Your task to perform on an android device: Add usb-a to the cart on newegg.com, then select checkout. Image 0: 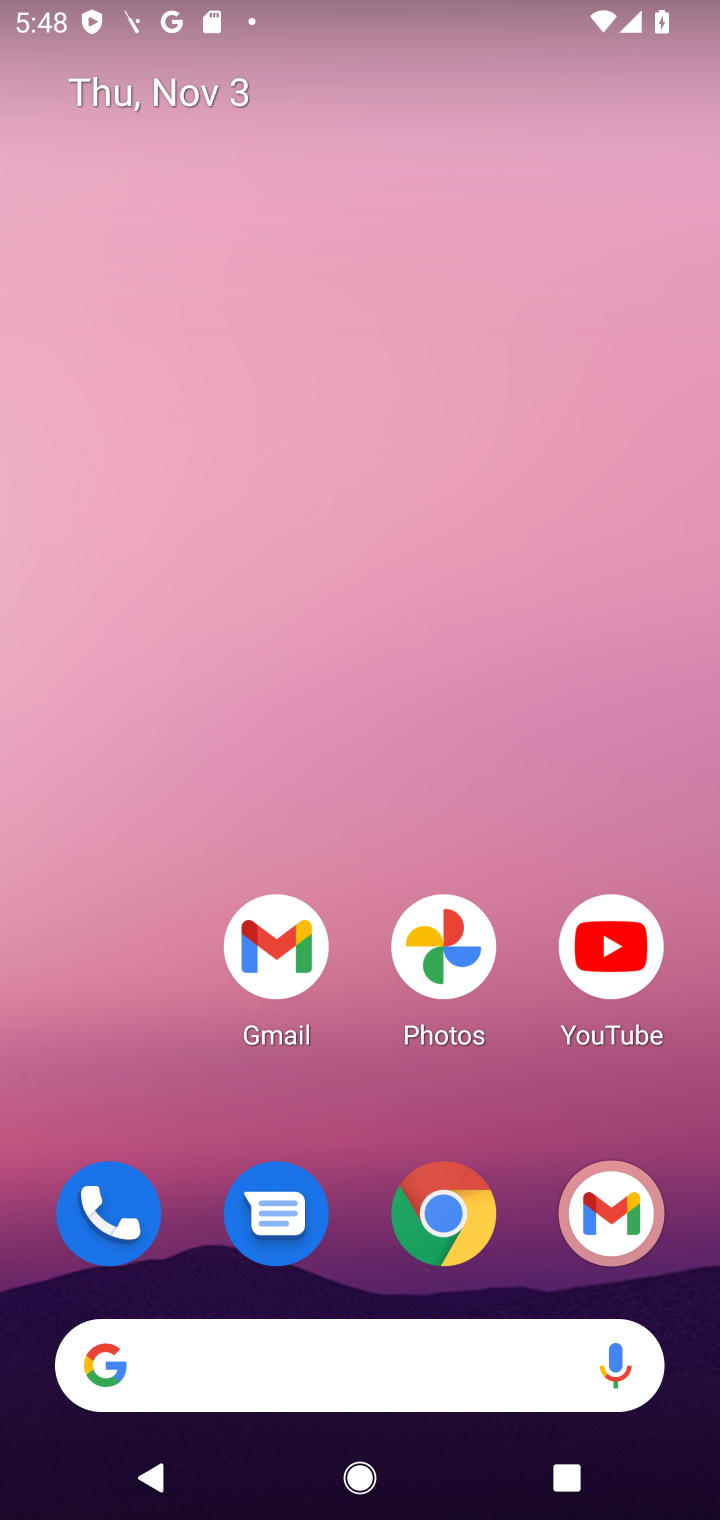
Step 0: click (454, 1225)
Your task to perform on an android device: Add usb-a to the cart on newegg.com, then select checkout. Image 1: 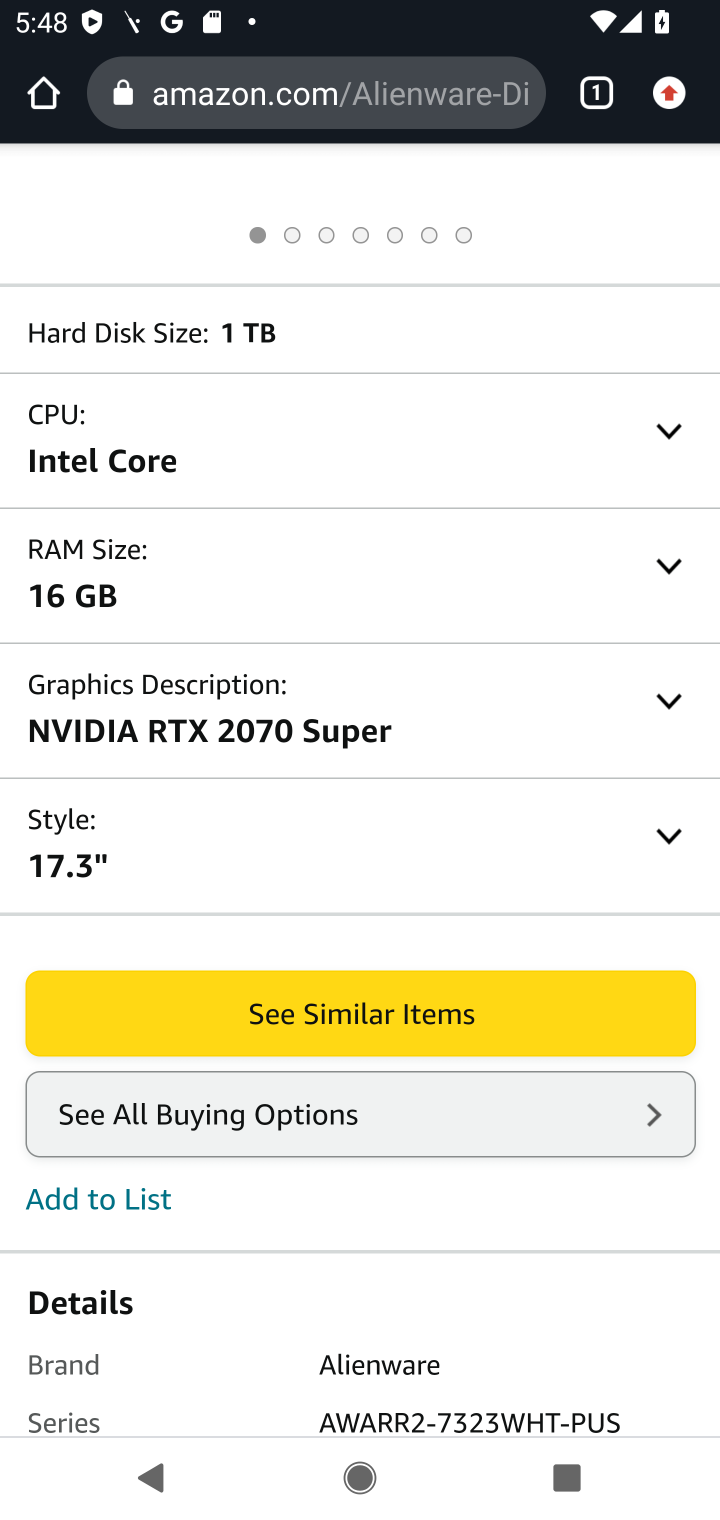
Step 1: click (365, 99)
Your task to perform on an android device: Add usb-a to the cart on newegg.com, then select checkout. Image 2: 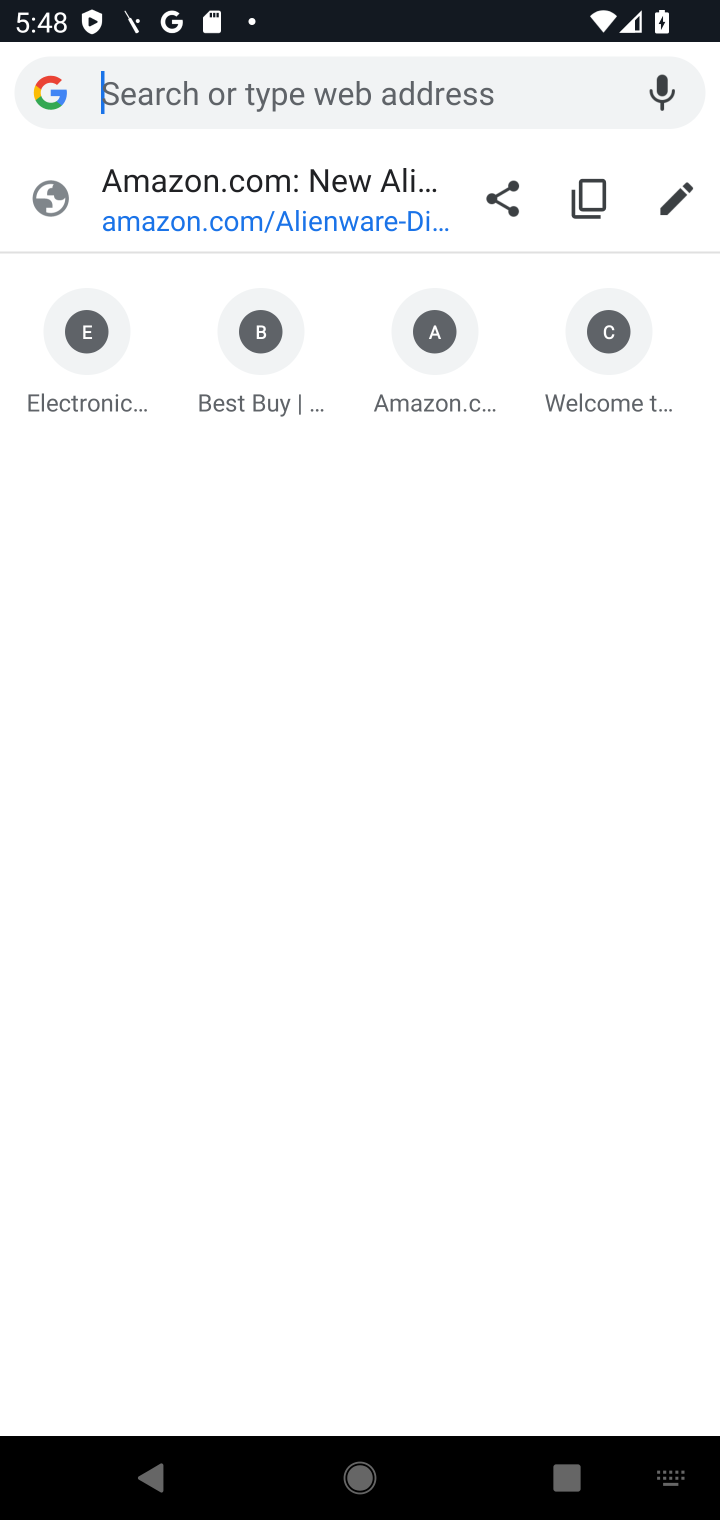
Step 2: type "newegg.com"
Your task to perform on an android device: Add usb-a to the cart on newegg.com, then select checkout. Image 3: 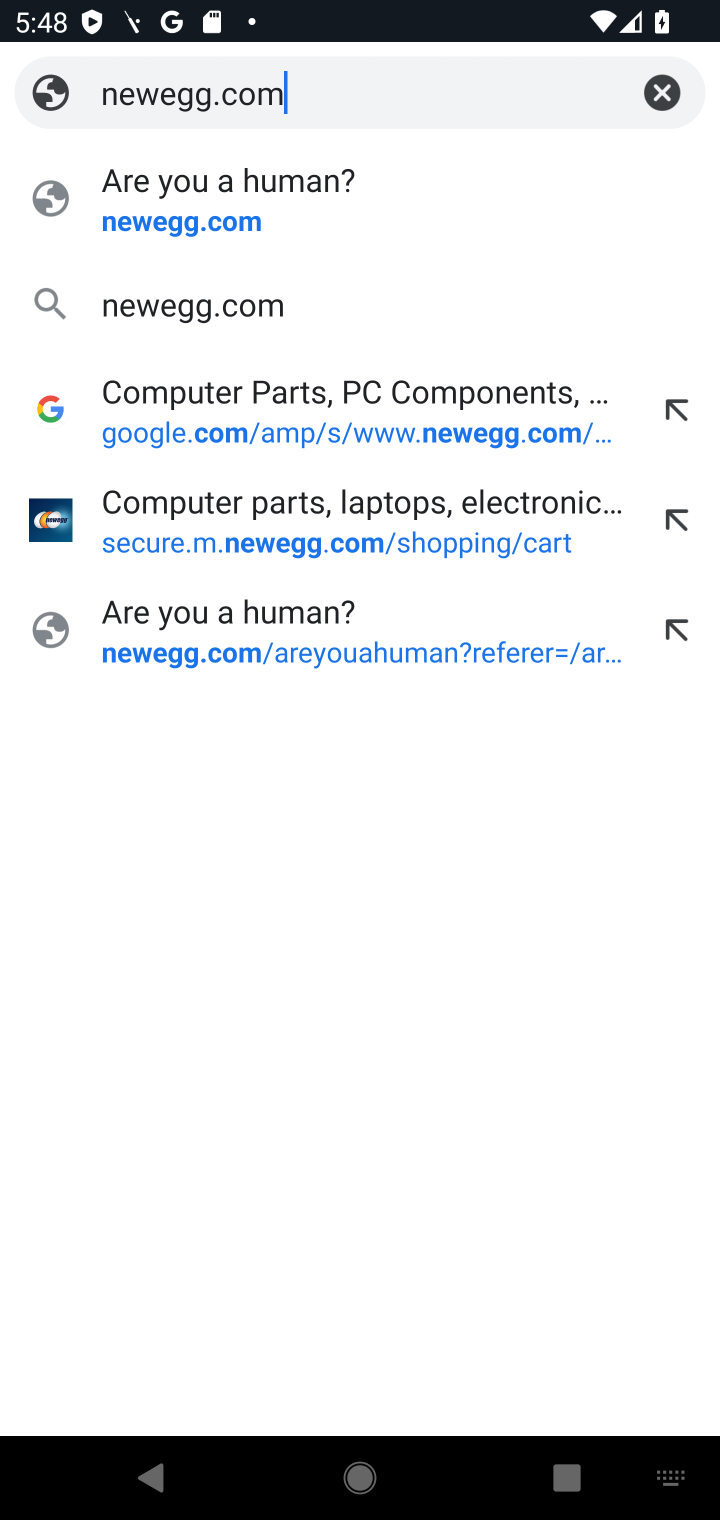
Step 3: click (170, 317)
Your task to perform on an android device: Add usb-a to the cart on newegg.com, then select checkout. Image 4: 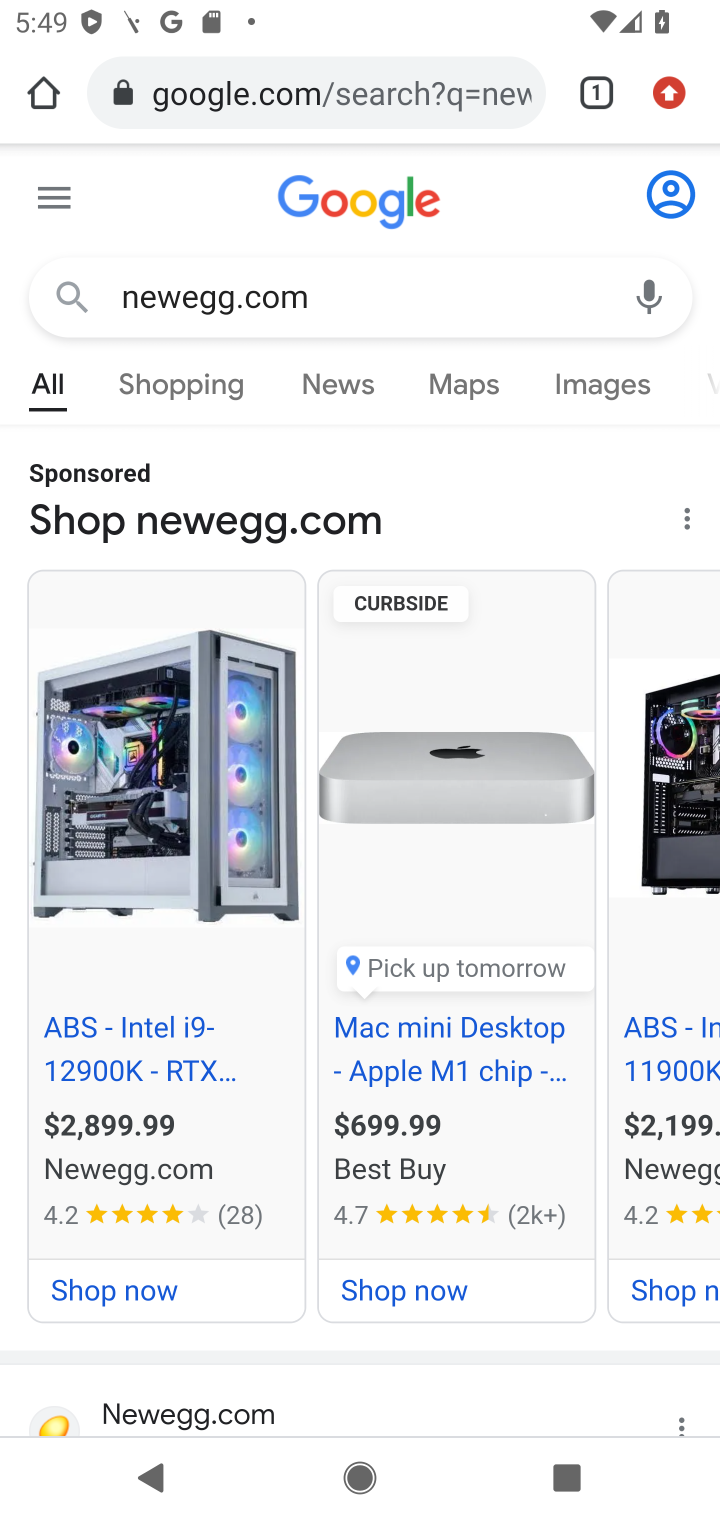
Step 4: drag from (317, 871) to (349, 156)
Your task to perform on an android device: Add usb-a to the cart on newegg.com, then select checkout. Image 5: 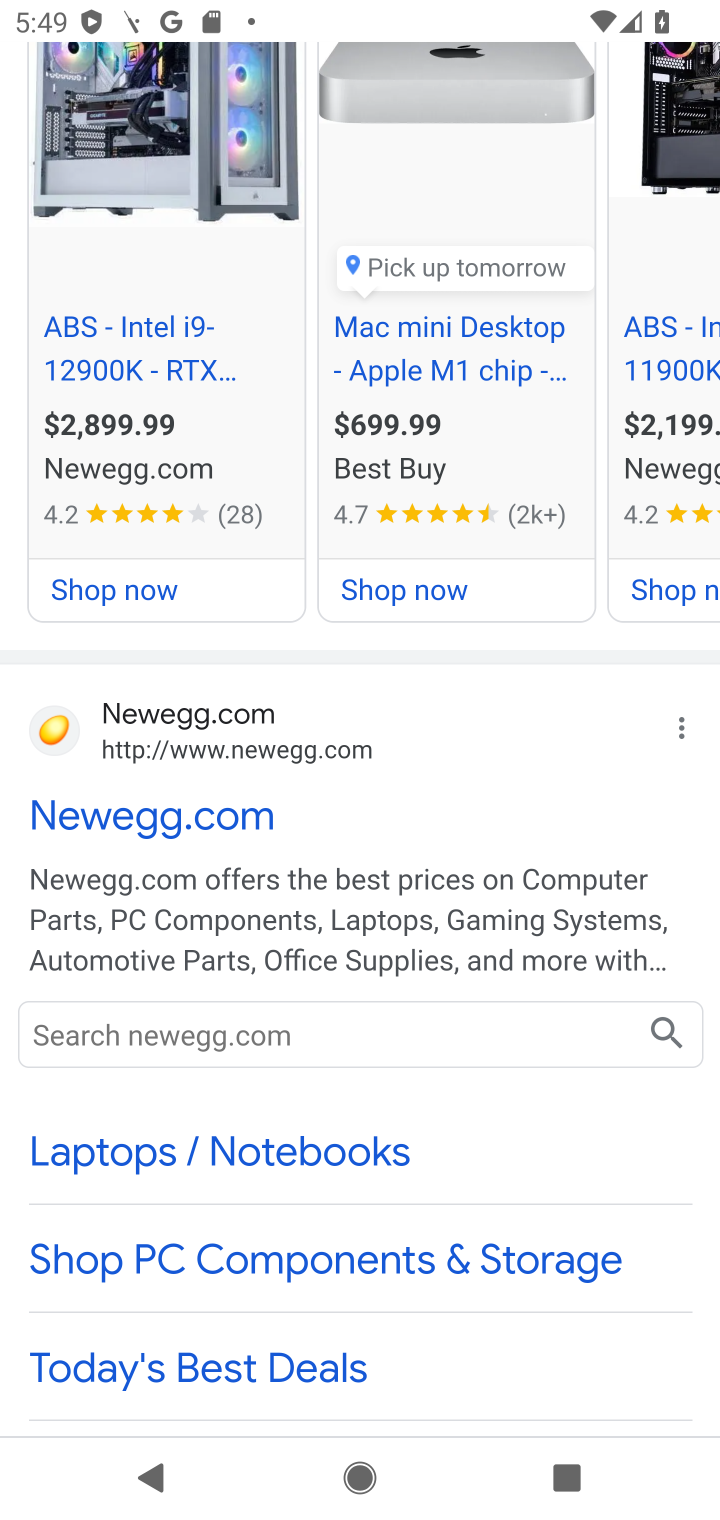
Step 5: click (178, 814)
Your task to perform on an android device: Add usb-a to the cart on newegg.com, then select checkout. Image 6: 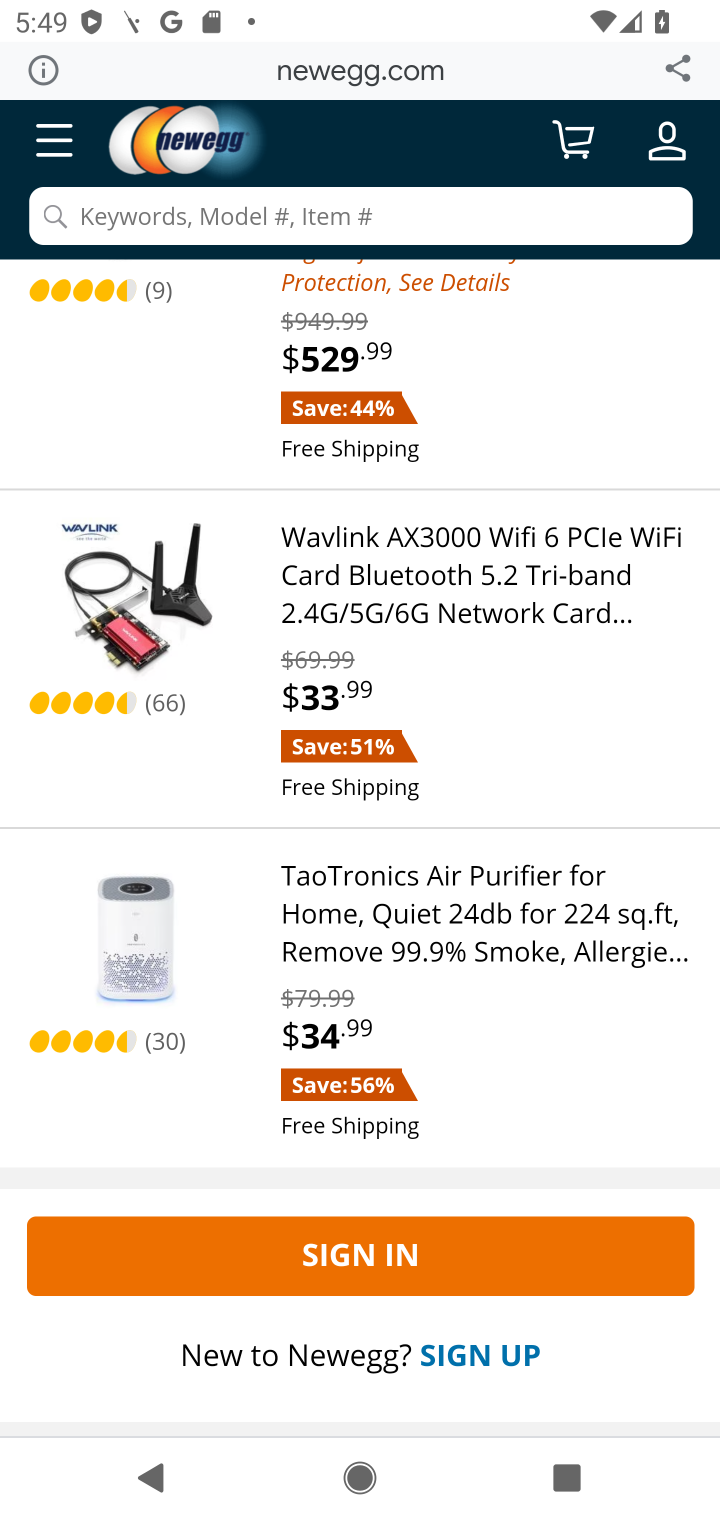
Step 6: click (256, 224)
Your task to perform on an android device: Add usb-a to the cart on newegg.com, then select checkout. Image 7: 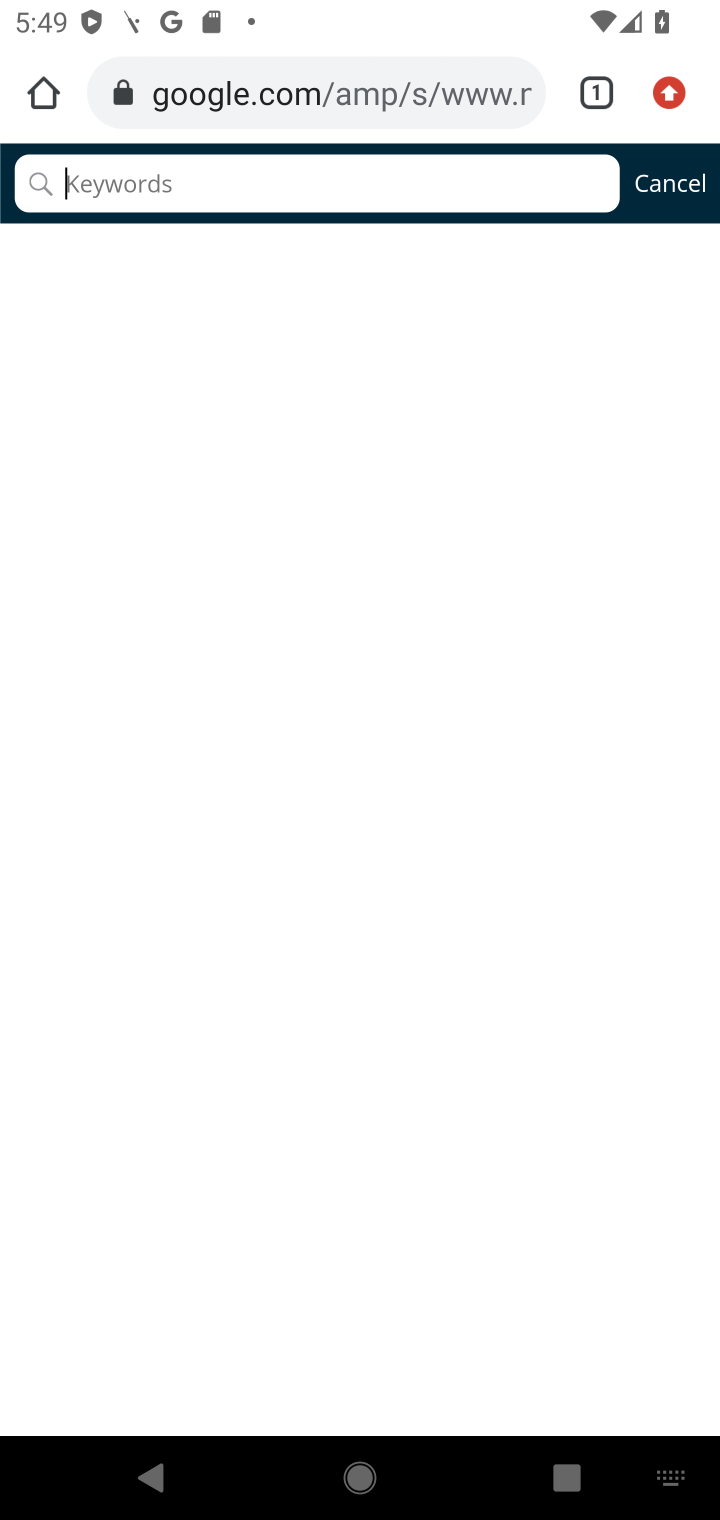
Step 7: type "usb-a "
Your task to perform on an android device: Add usb-a to the cart on newegg.com, then select checkout. Image 8: 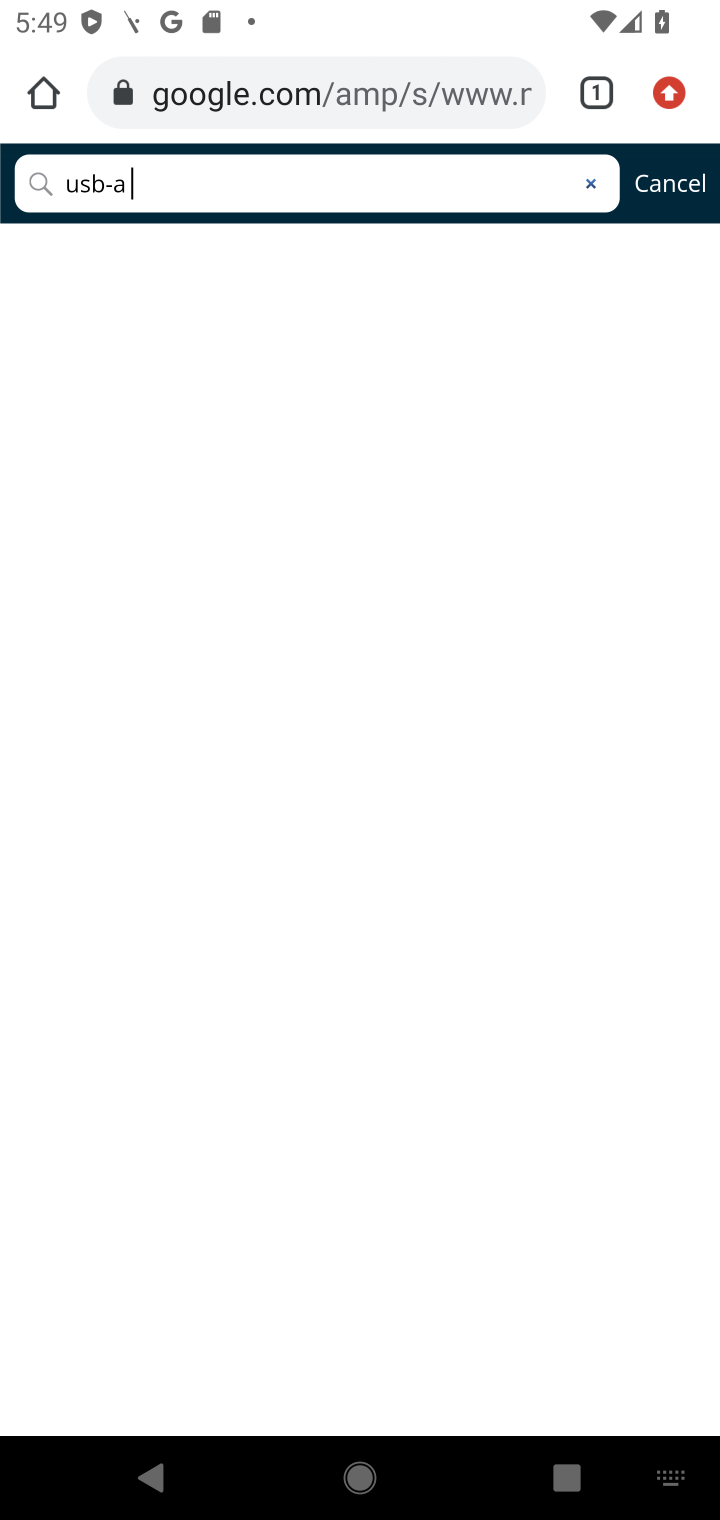
Step 8: click (36, 186)
Your task to perform on an android device: Add usb-a to the cart on newegg.com, then select checkout. Image 9: 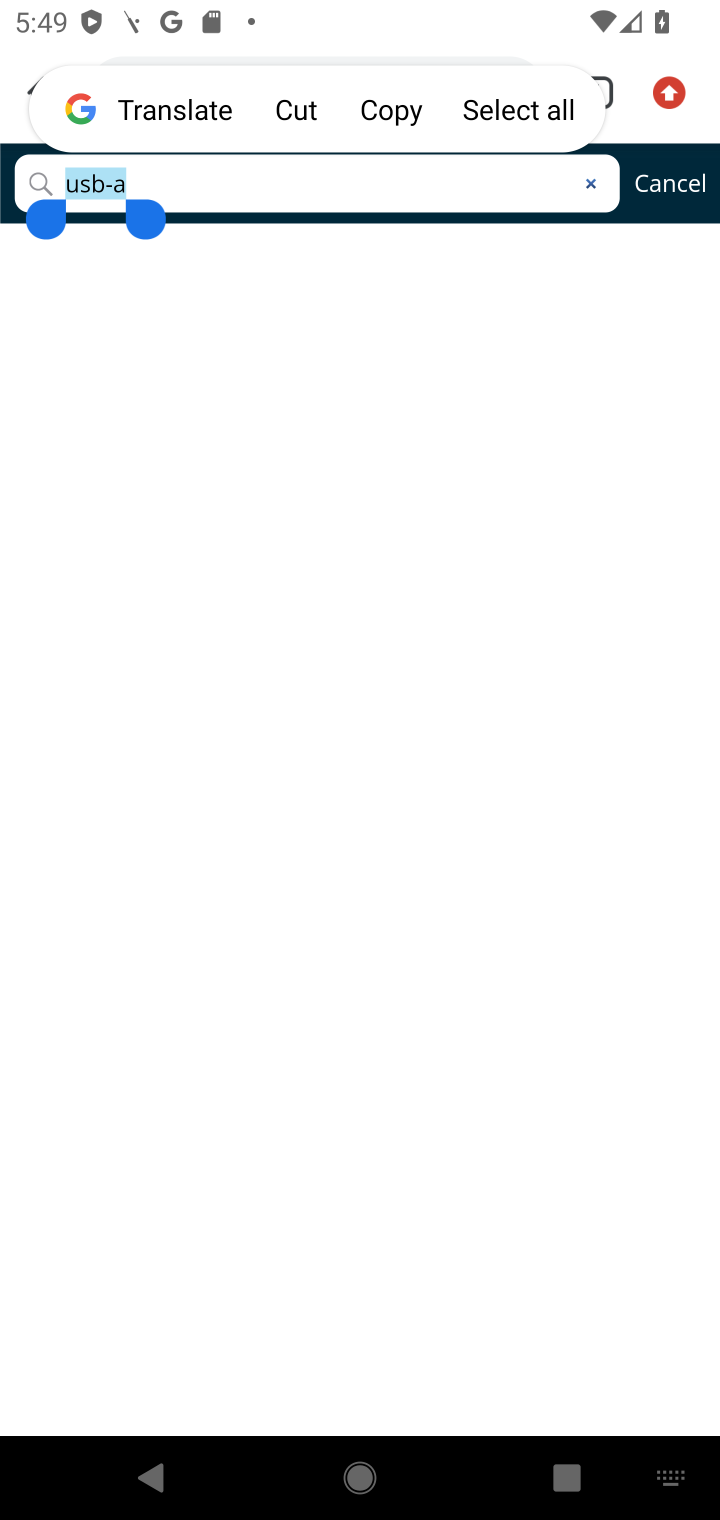
Step 9: click (40, 180)
Your task to perform on an android device: Add usb-a to the cart on newegg.com, then select checkout. Image 10: 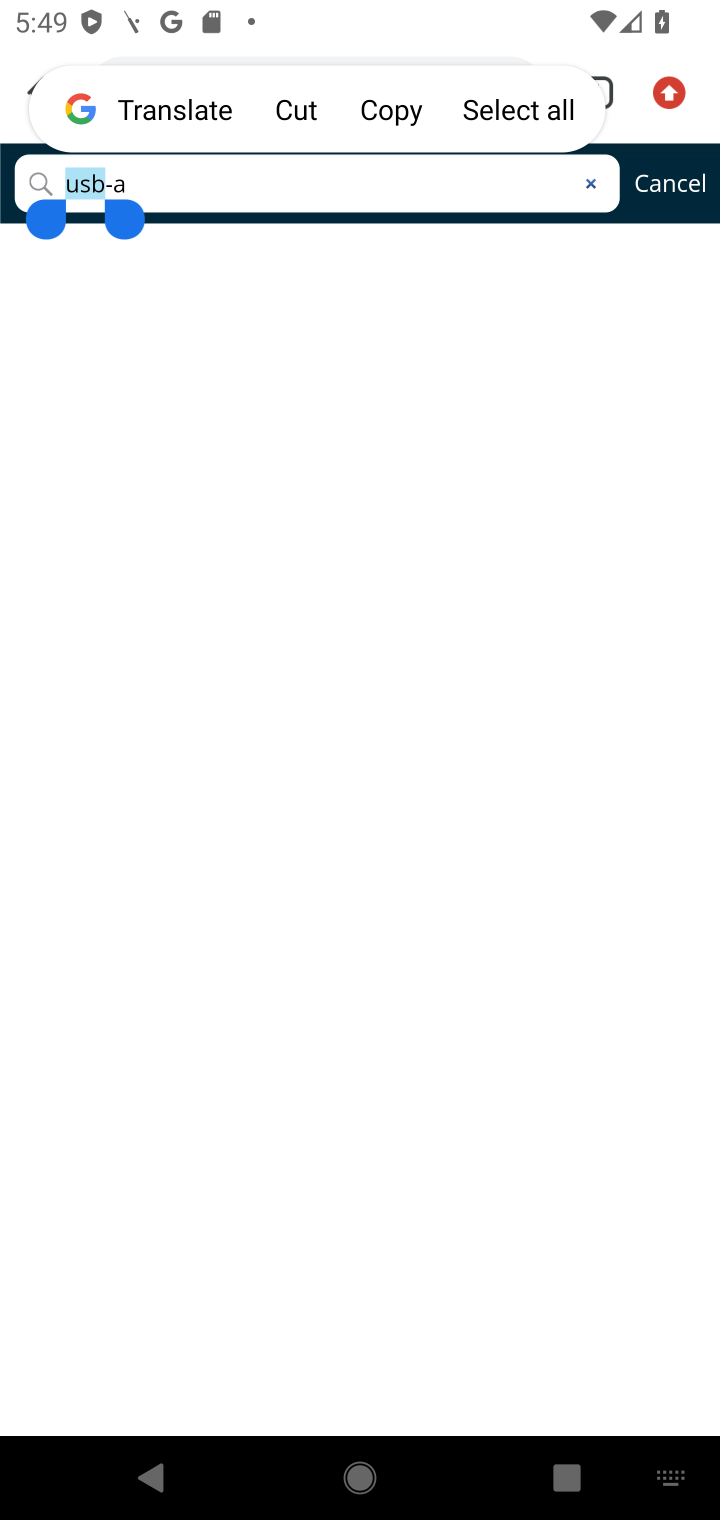
Step 10: click (38, 193)
Your task to perform on an android device: Add usb-a to the cart on newegg.com, then select checkout. Image 11: 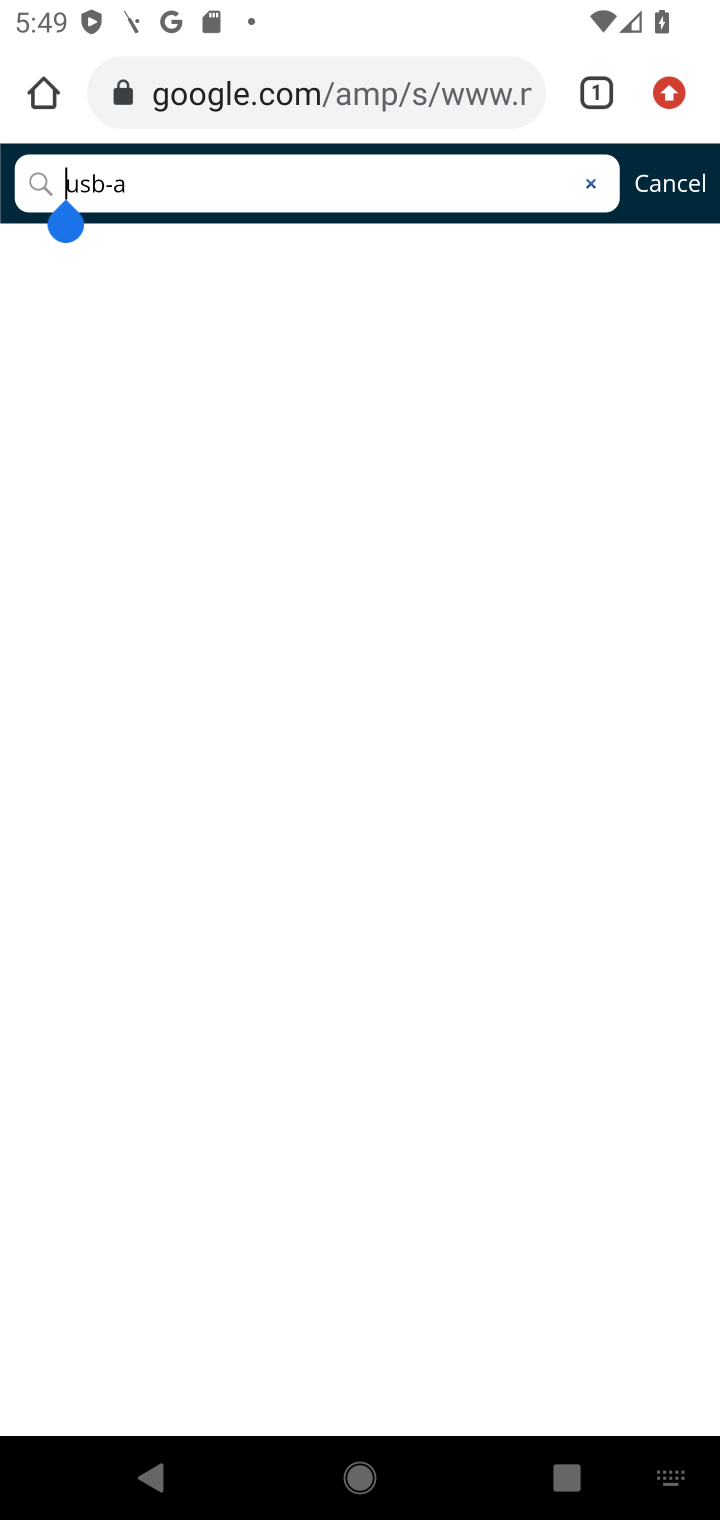
Step 11: task complete